Your task to perform on an android device: Go to CNN.com Image 0: 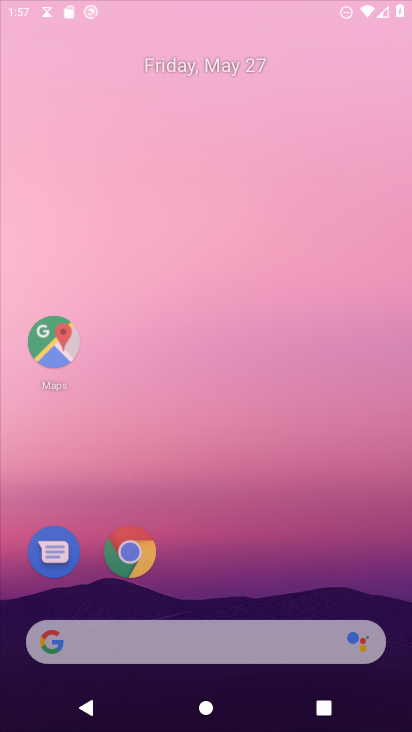
Step 0: click (133, 574)
Your task to perform on an android device: Go to CNN.com Image 1: 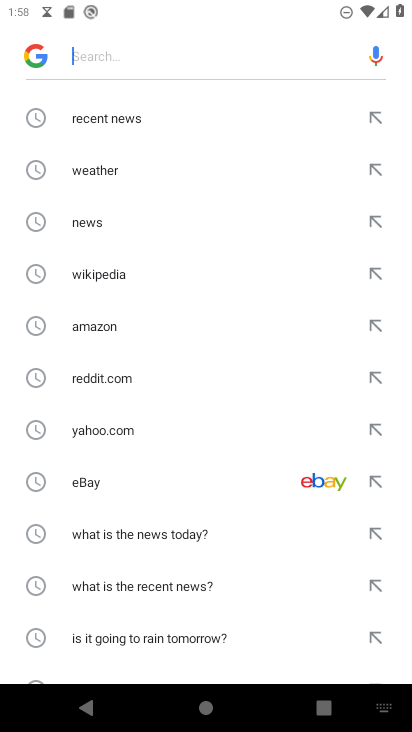
Step 1: press home button
Your task to perform on an android device: Go to CNN.com Image 2: 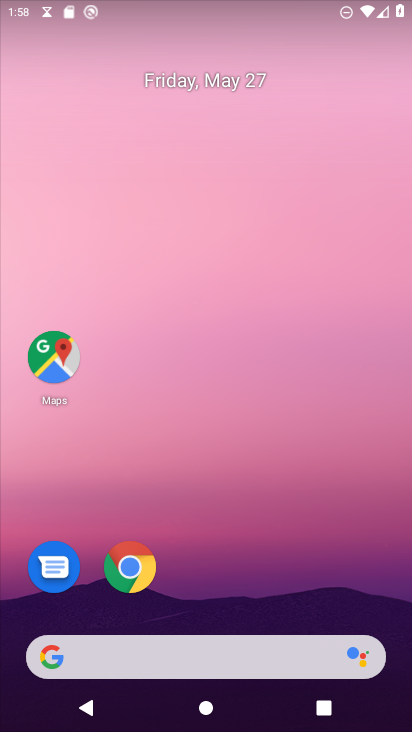
Step 2: click (137, 581)
Your task to perform on an android device: Go to CNN.com Image 3: 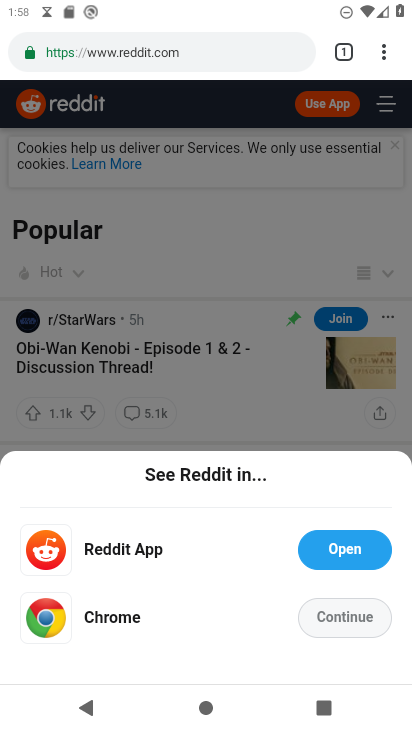
Step 3: click (155, 51)
Your task to perform on an android device: Go to CNN.com Image 4: 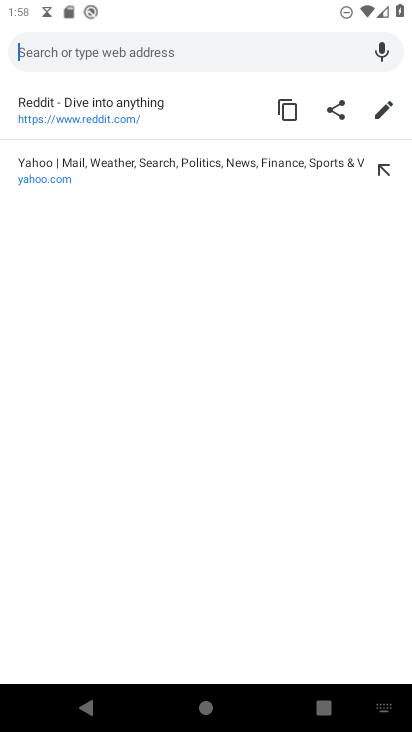
Step 4: type "cnn.com"
Your task to perform on an android device: Go to CNN.com Image 5: 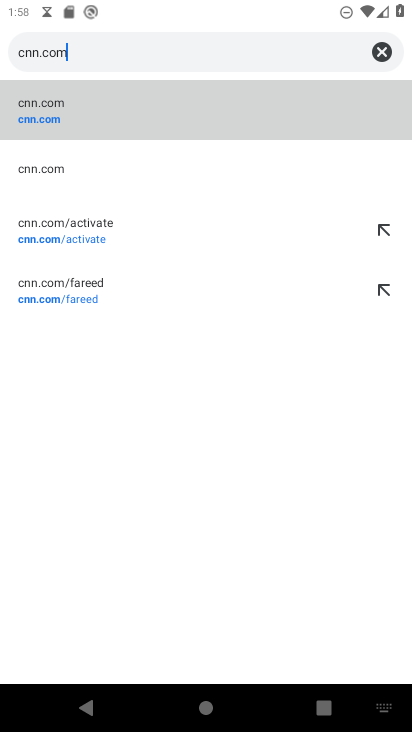
Step 5: click (42, 118)
Your task to perform on an android device: Go to CNN.com Image 6: 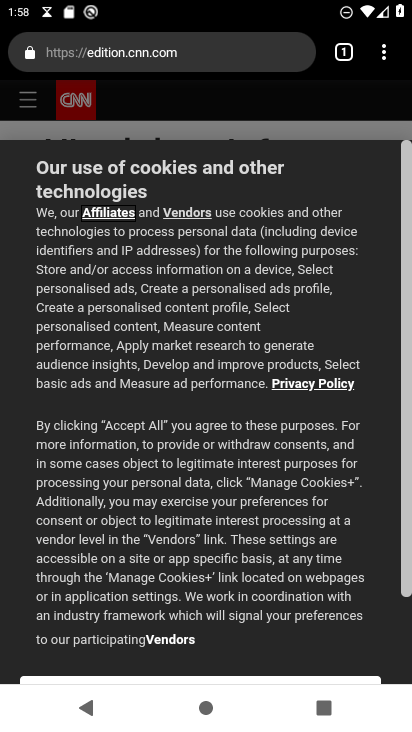
Step 6: task complete